Your task to perform on an android device: Open Google Maps Image 0: 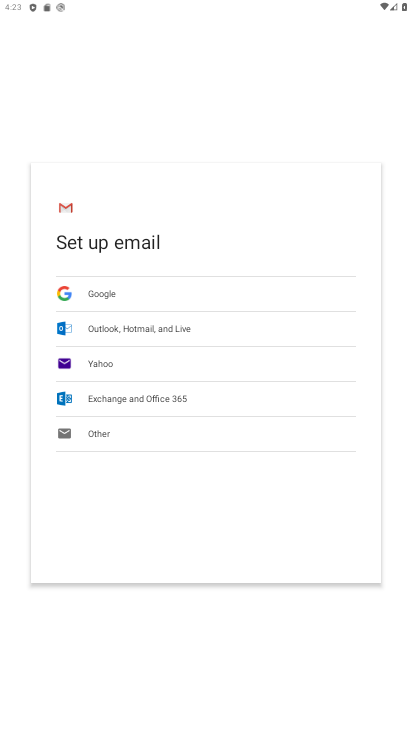
Step 0: press home button
Your task to perform on an android device: Open Google Maps Image 1: 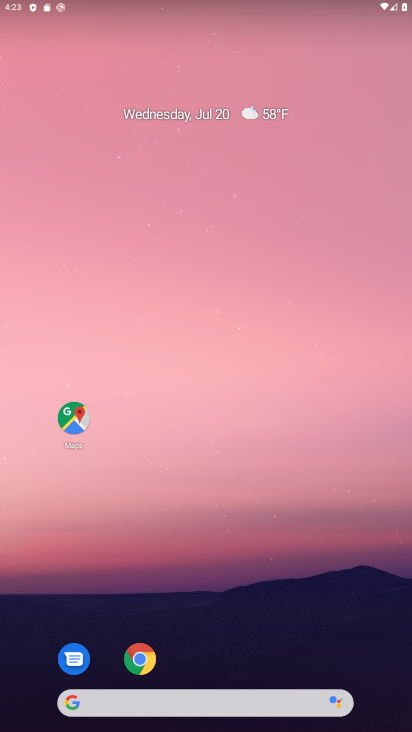
Step 1: drag from (177, 705) to (407, 11)
Your task to perform on an android device: Open Google Maps Image 2: 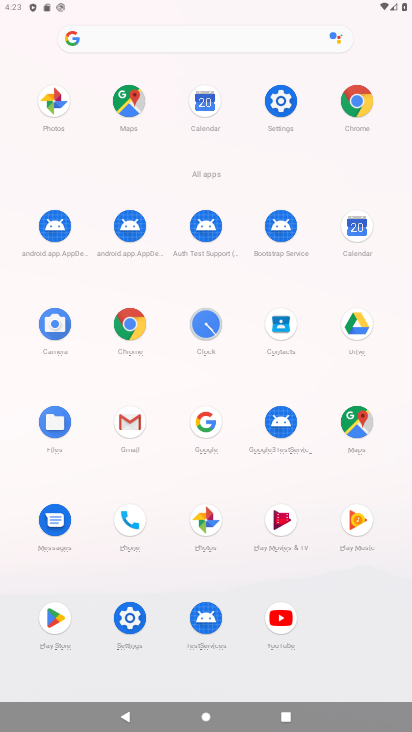
Step 2: click (352, 420)
Your task to perform on an android device: Open Google Maps Image 3: 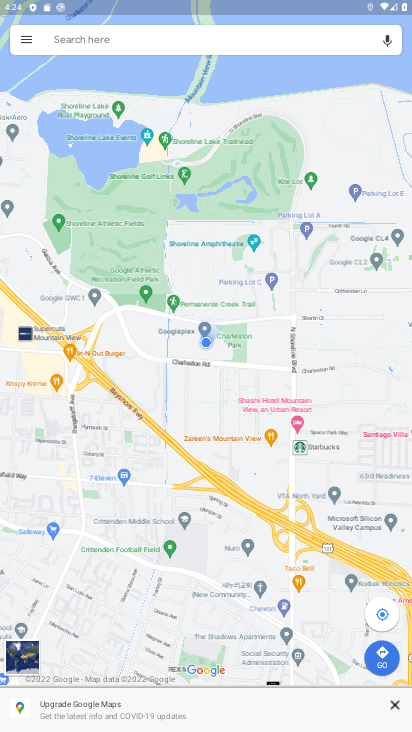
Step 3: task complete